Your task to perform on an android device: find photos in the google photos app Image 0: 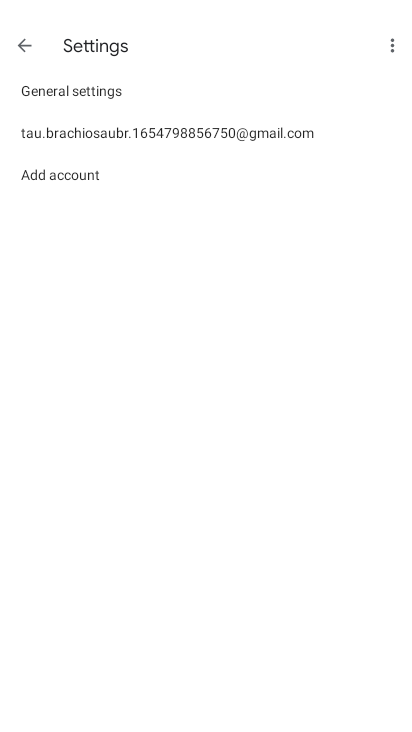
Step 0: press home button
Your task to perform on an android device: find photos in the google photos app Image 1: 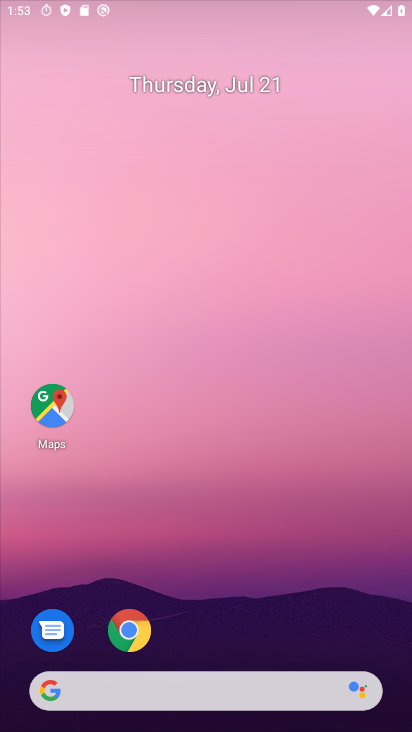
Step 1: drag from (204, 647) to (294, 64)
Your task to perform on an android device: find photos in the google photos app Image 2: 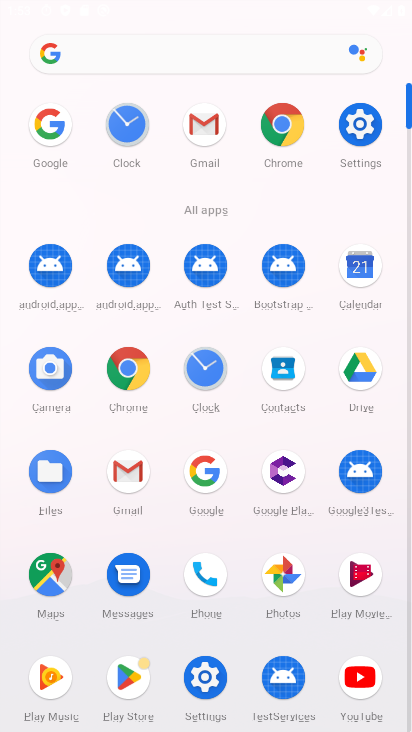
Step 2: click (289, 577)
Your task to perform on an android device: find photos in the google photos app Image 3: 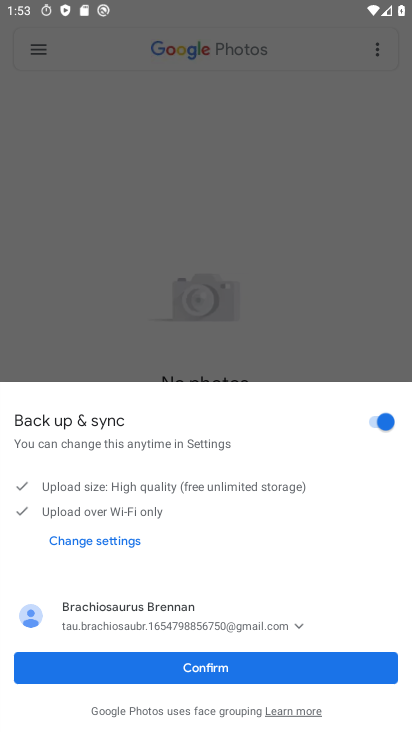
Step 3: click (182, 667)
Your task to perform on an android device: find photos in the google photos app Image 4: 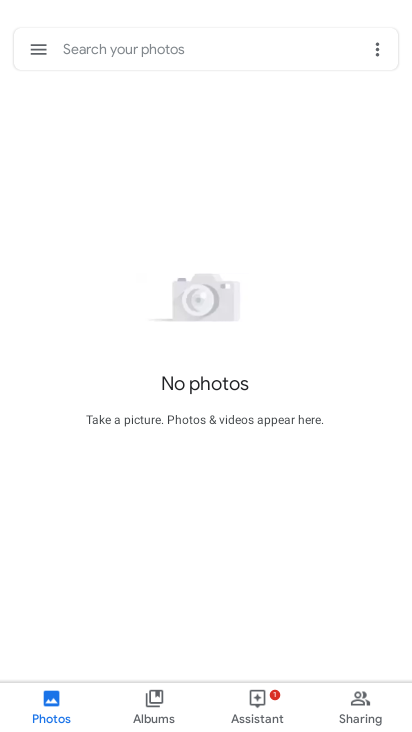
Step 4: task complete